Your task to perform on an android device: show emergency info Image 0: 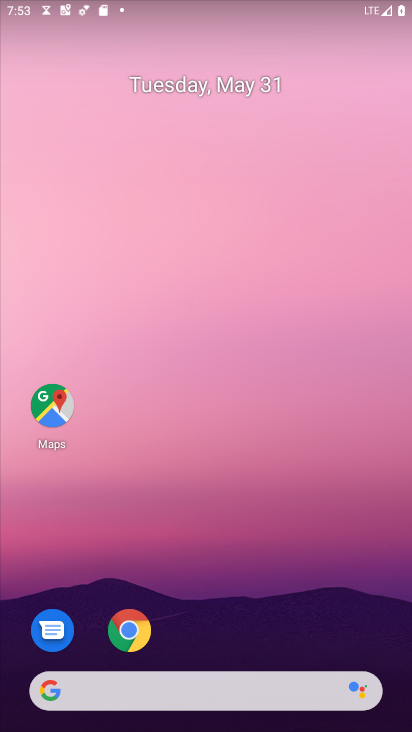
Step 0: drag from (223, 615) to (241, 151)
Your task to perform on an android device: show emergency info Image 1: 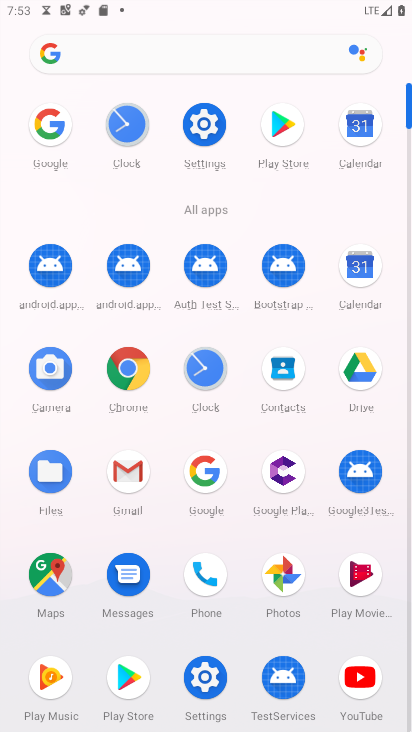
Step 1: click (205, 124)
Your task to perform on an android device: show emergency info Image 2: 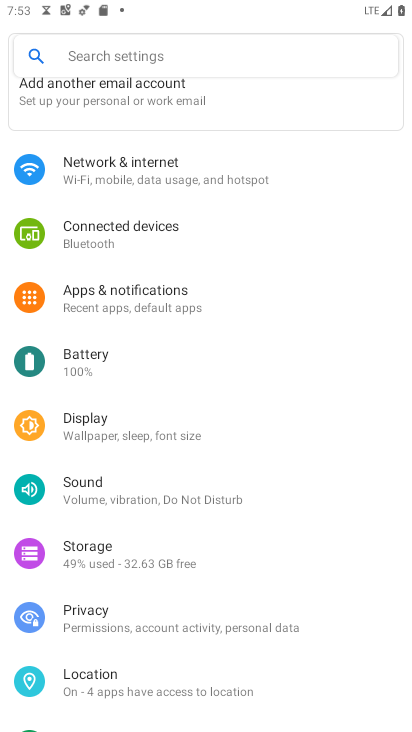
Step 2: drag from (123, 393) to (160, 326)
Your task to perform on an android device: show emergency info Image 3: 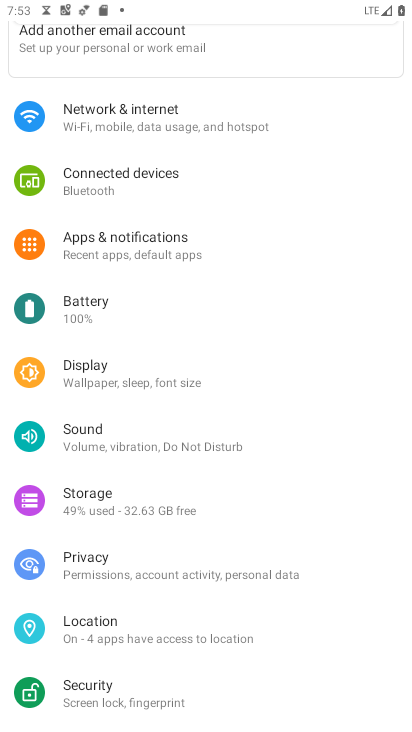
Step 3: drag from (115, 405) to (167, 339)
Your task to perform on an android device: show emergency info Image 4: 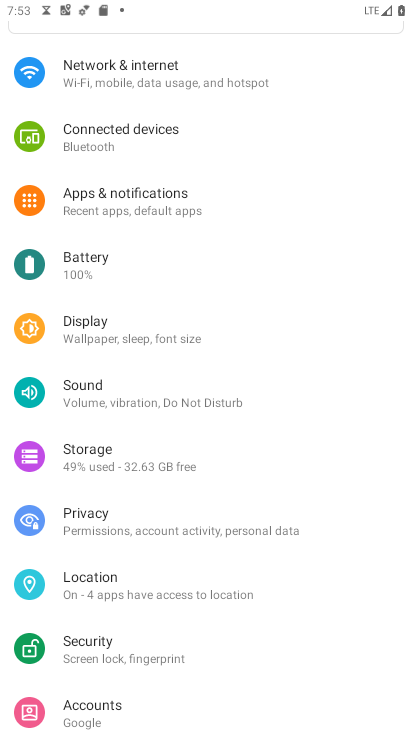
Step 4: drag from (116, 433) to (161, 363)
Your task to perform on an android device: show emergency info Image 5: 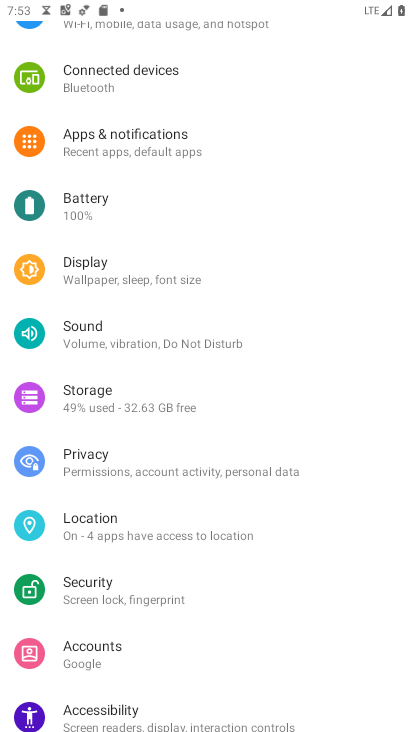
Step 5: drag from (120, 449) to (141, 404)
Your task to perform on an android device: show emergency info Image 6: 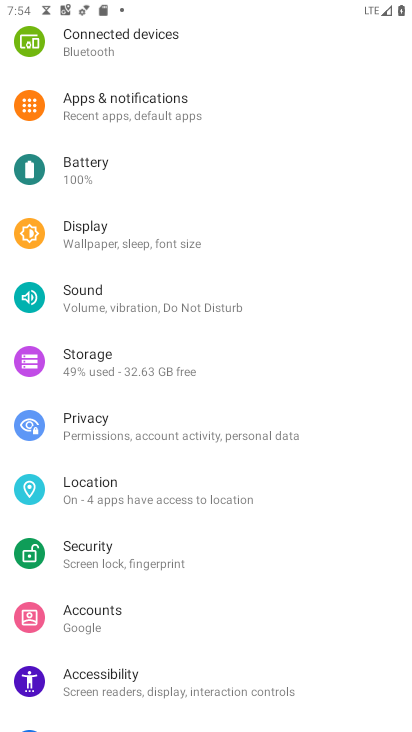
Step 6: drag from (127, 470) to (191, 372)
Your task to perform on an android device: show emergency info Image 7: 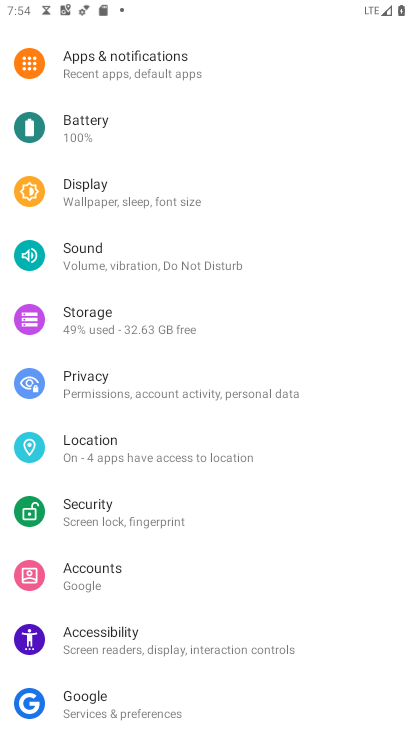
Step 7: drag from (70, 477) to (146, 389)
Your task to perform on an android device: show emergency info Image 8: 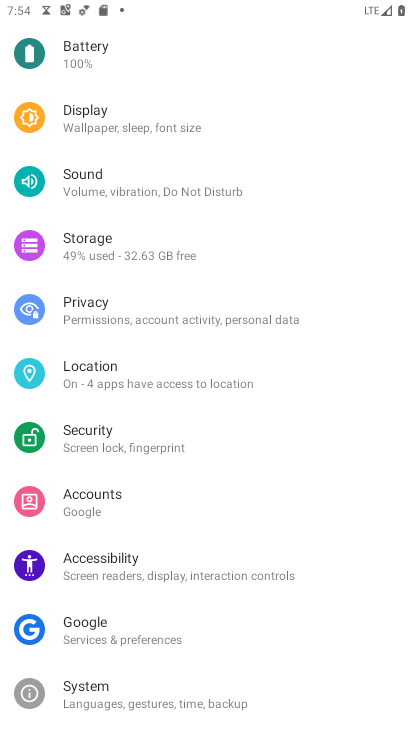
Step 8: drag from (100, 481) to (149, 414)
Your task to perform on an android device: show emergency info Image 9: 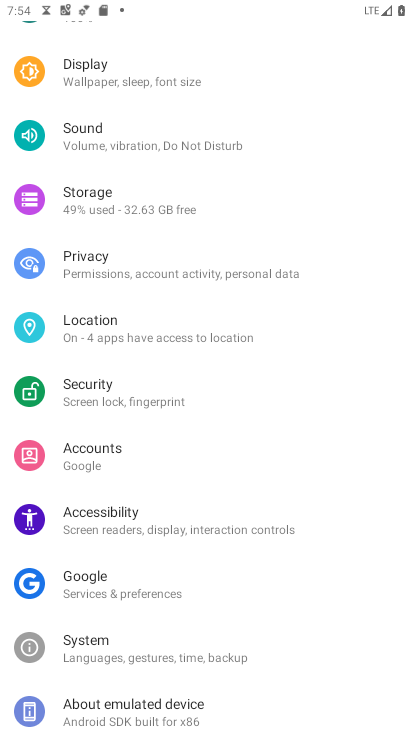
Step 9: drag from (107, 490) to (150, 426)
Your task to perform on an android device: show emergency info Image 10: 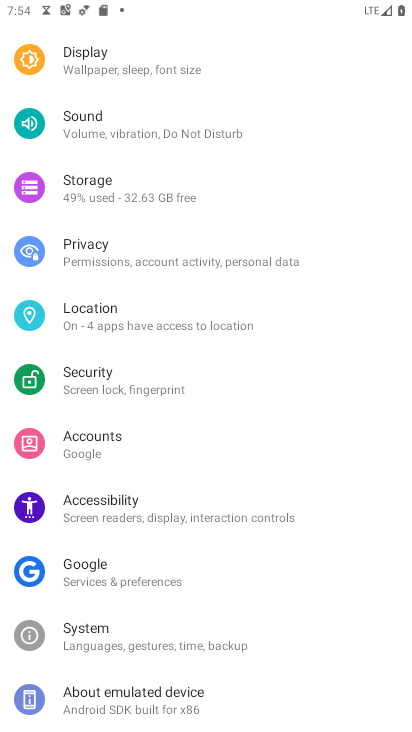
Step 10: click (123, 688)
Your task to perform on an android device: show emergency info Image 11: 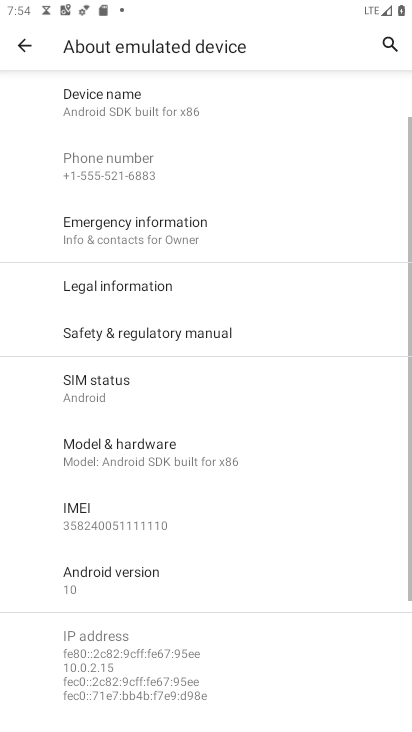
Step 11: click (141, 241)
Your task to perform on an android device: show emergency info Image 12: 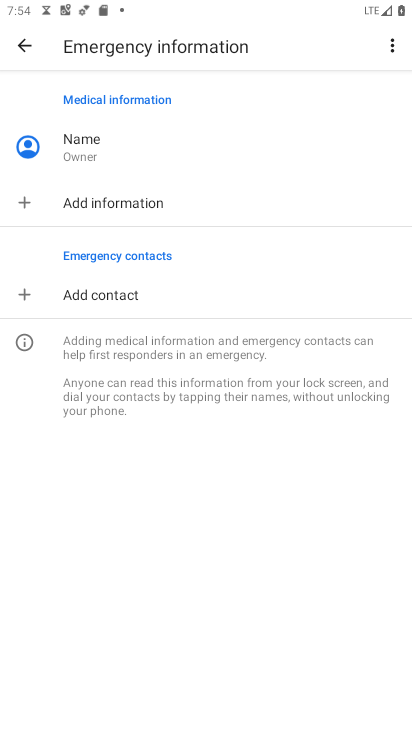
Step 12: task complete